Your task to perform on an android device: remove spam from my inbox in the gmail app Image 0: 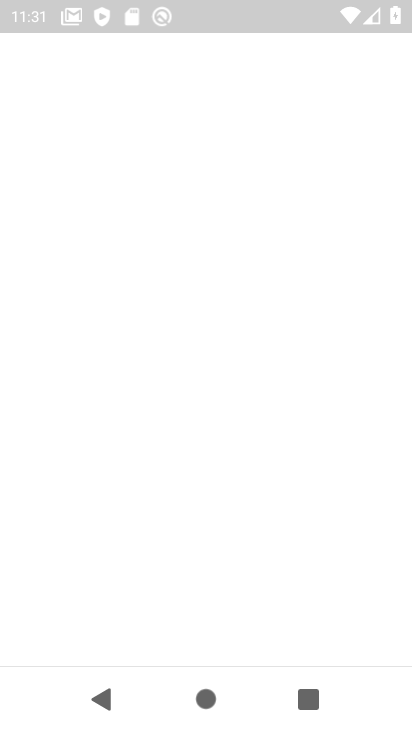
Step 0: drag from (240, 296) to (145, 70)
Your task to perform on an android device: remove spam from my inbox in the gmail app Image 1: 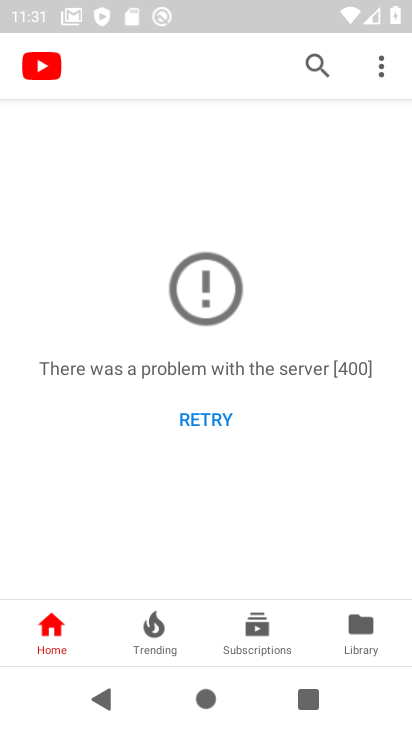
Step 1: press home button
Your task to perform on an android device: remove spam from my inbox in the gmail app Image 2: 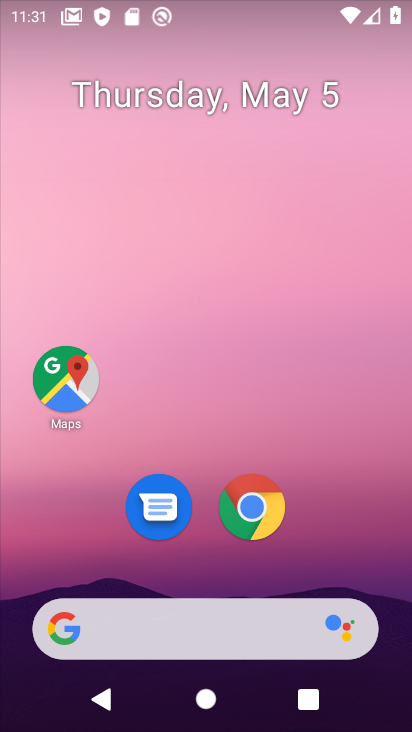
Step 2: drag from (347, 549) to (293, 57)
Your task to perform on an android device: remove spam from my inbox in the gmail app Image 3: 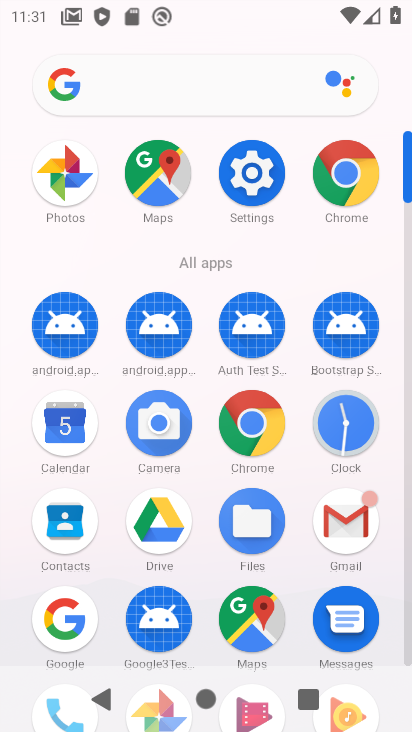
Step 3: click (343, 517)
Your task to perform on an android device: remove spam from my inbox in the gmail app Image 4: 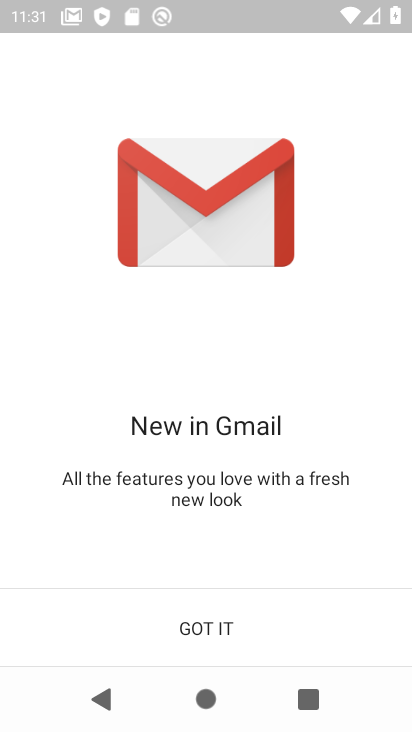
Step 4: click (220, 622)
Your task to perform on an android device: remove spam from my inbox in the gmail app Image 5: 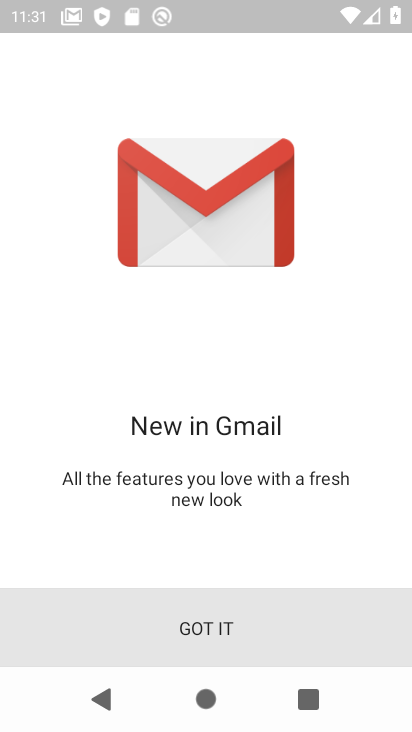
Step 5: click (220, 622)
Your task to perform on an android device: remove spam from my inbox in the gmail app Image 6: 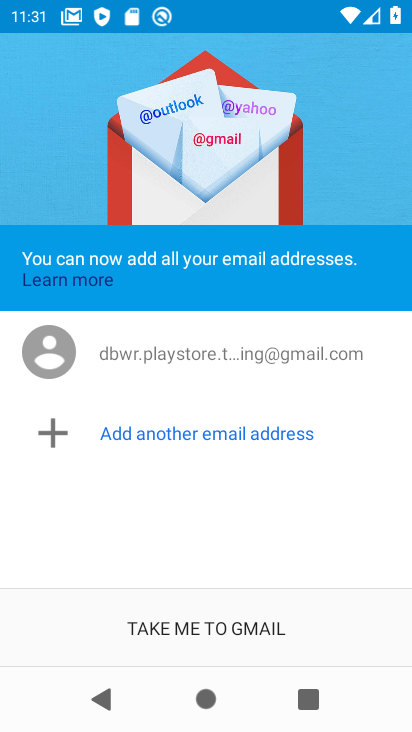
Step 6: click (203, 609)
Your task to perform on an android device: remove spam from my inbox in the gmail app Image 7: 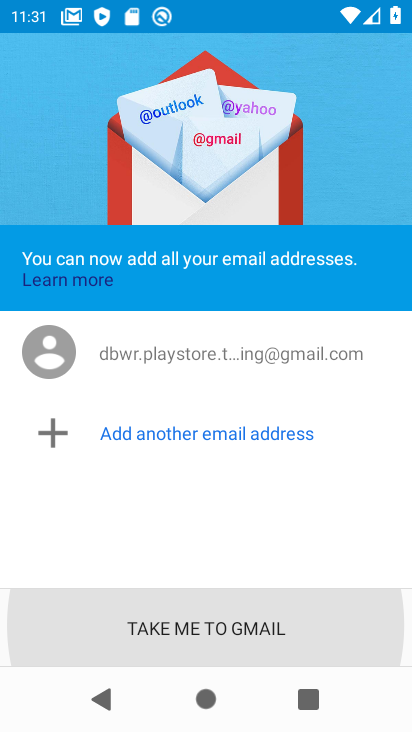
Step 7: click (203, 609)
Your task to perform on an android device: remove spam from my inbox in the gmail app Image 8: 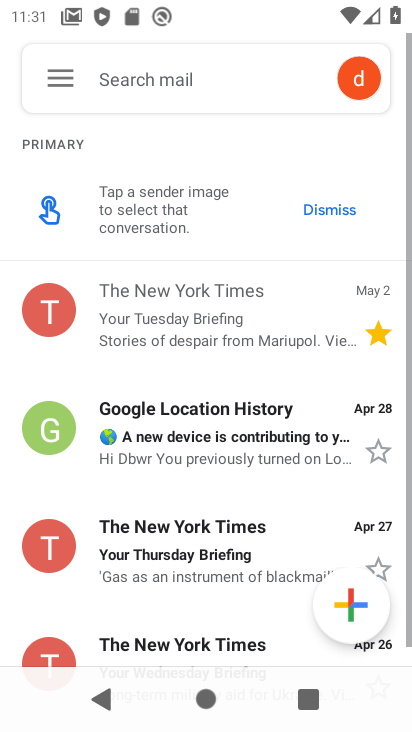
Step 8: drag from (64, 77) to (110, 361)
Your task to perform on an android device: remove spam from my inbox in the gmail app Image 9: 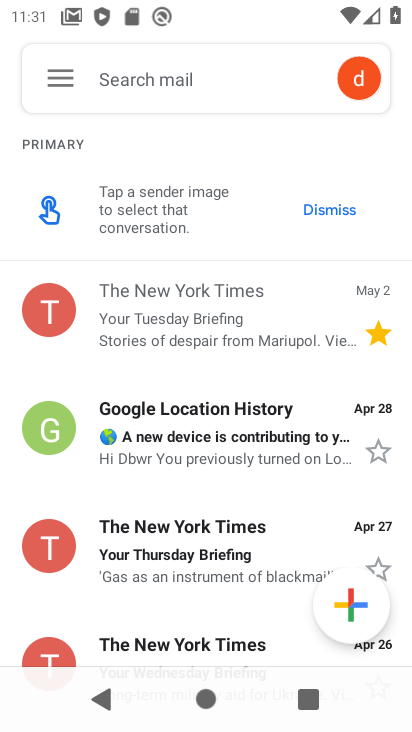
Step 9: click (66, 86)
Your task to perform on an android device: remove spam from my inbox in the gmail app Image 10: 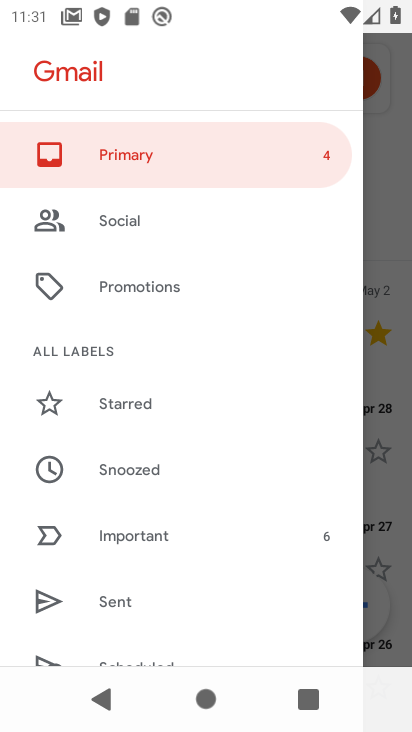
Step 10: drag from (173, 574) to (166, 184)
Your task to perform on an android device: remove spam from my inbox in the gmail app Image 11: 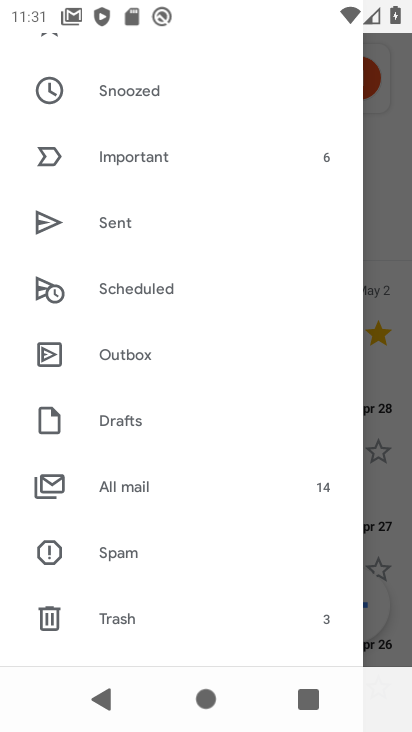
Step 11: click (119, 552)
Your task to perform on an android device: remove spam from my inbox in the gmail app Image 12: 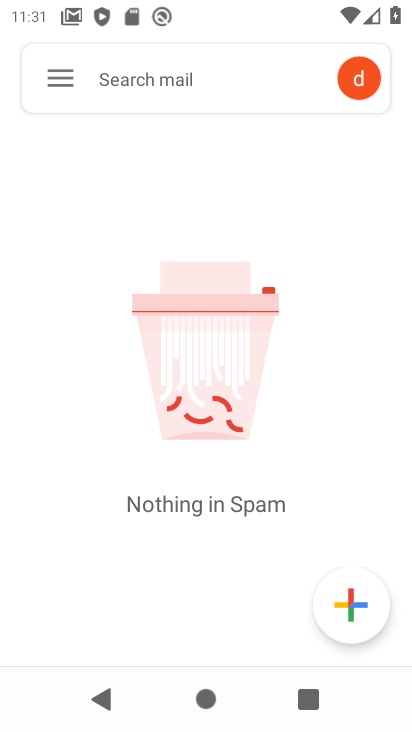
Step 12: task complete